Your task to perform on an android device: Go to Yahoo.com Image 0: 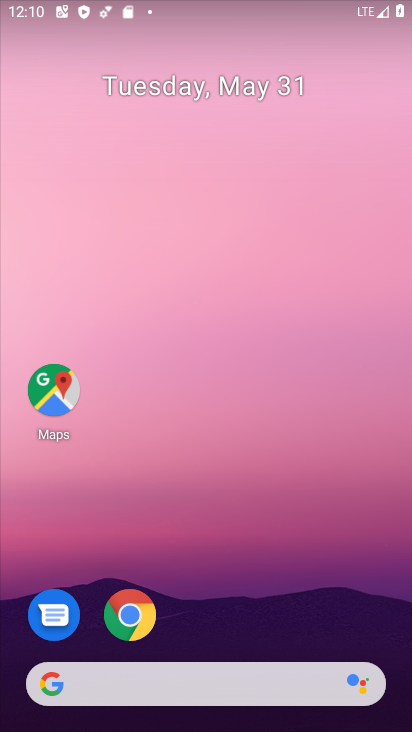
Step 0: click (127, 614)
Your task to perform on an android device: Go to Yahoo.com Image 1: 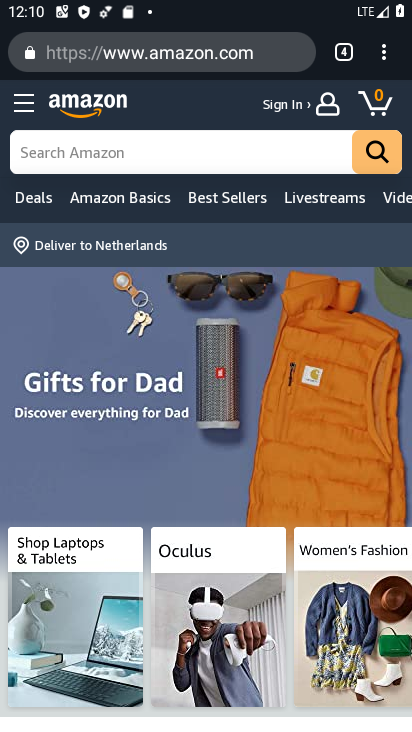
Step 1: click (173, 55)
Your task to perform on an android device: Go to Yahoo.com Image 2: 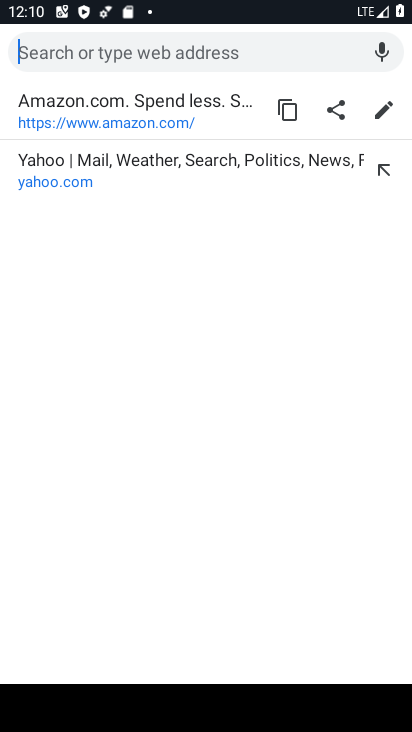
Step 2: type "yahoo.com"
Your task to perform on an android device: Go to Yahoo.com Image 3: 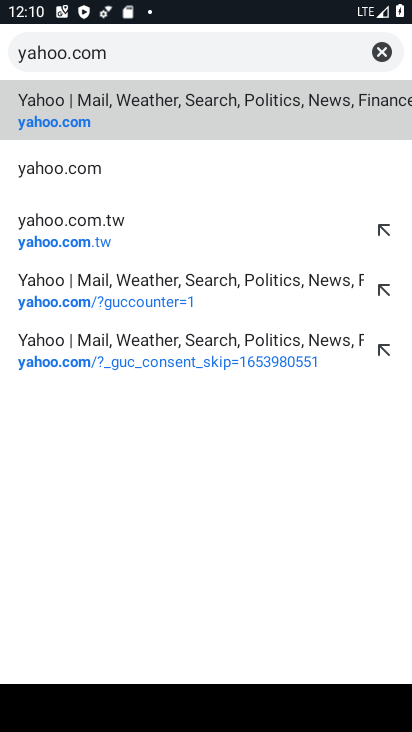
Step 3: click (74, 153)
Your task to perform on an android device: Go to Yahoo.com Image 4: 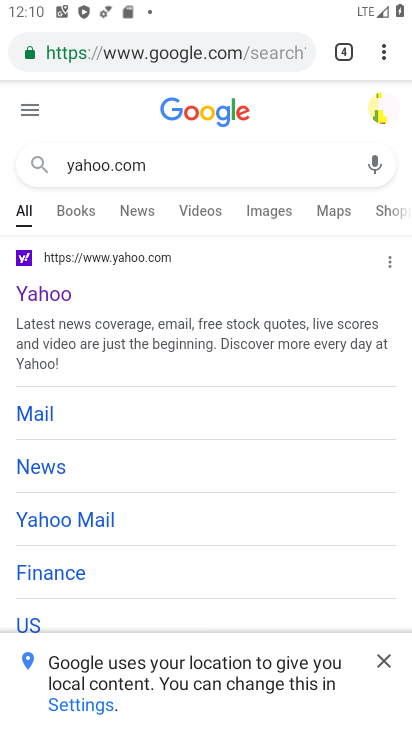
Step 4: task complete